Your task to perform on an android device: set the timer Image 0: 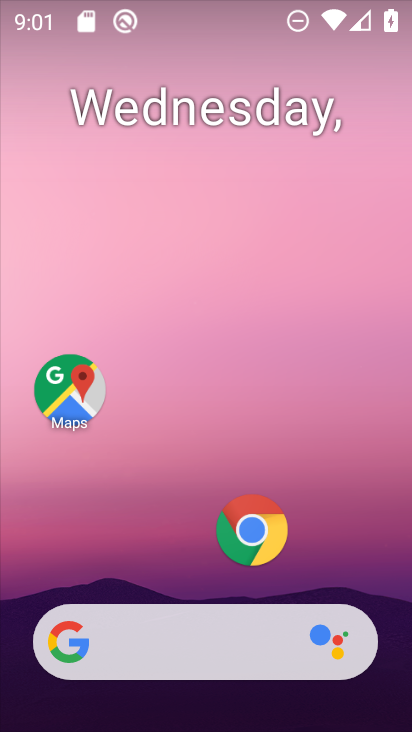
Step 0: drag from (156, 539) to (268, 82)
Your task to perform on an android device: set the timer Image 1: 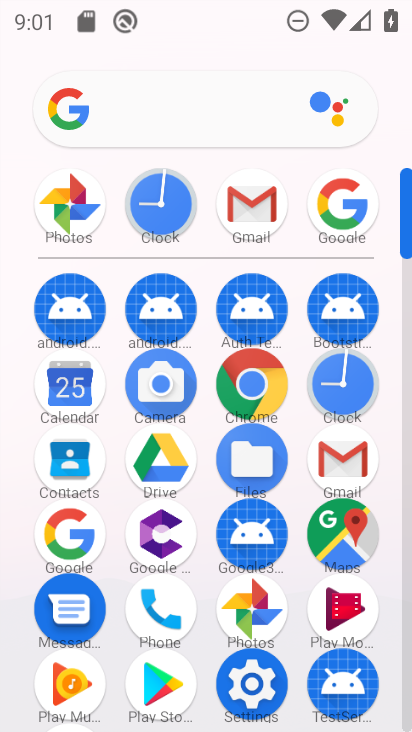
Step 1: click (156, 205)
Your task to perform on an android device: set the timer Image 2: 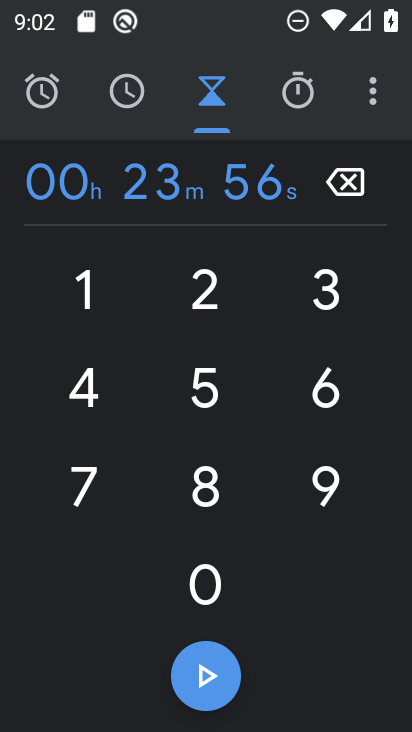
Step 2: task complete